Your task to perform on an android device: Check the weather Image 0: 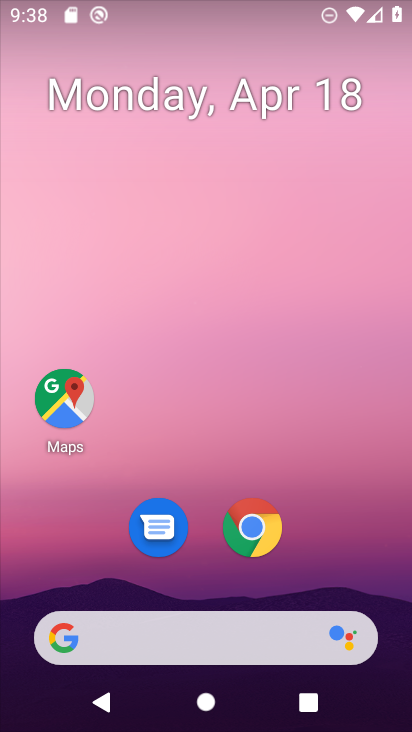
Step 0: drag from (341, 557) to (253, 54)
Your task to perform on an android device: Check the weather Image 1: 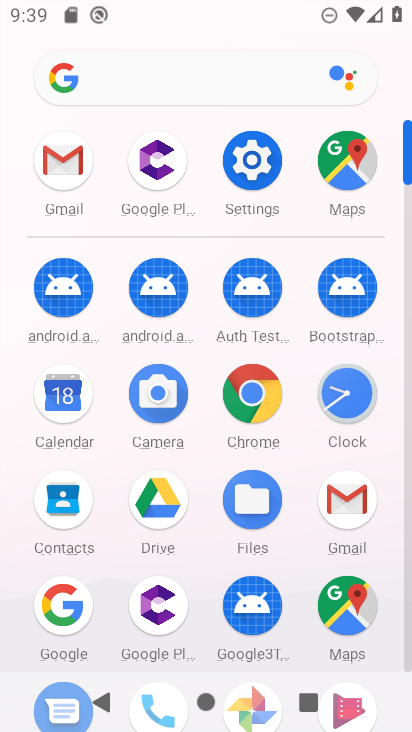
Step 1: drag from (14, 523) to (7, 222)
Your task to perform on an android device: Check the weather Image 2: 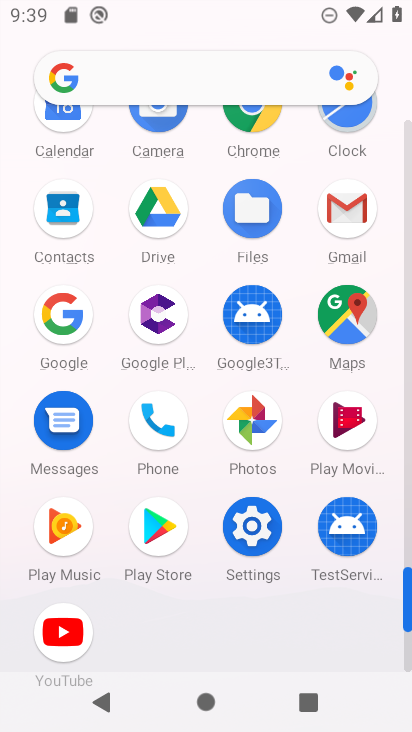
Step 2: drag from (21, 148) to (17, 414)
Your task to perform on an android device: Check the weather Image 3: 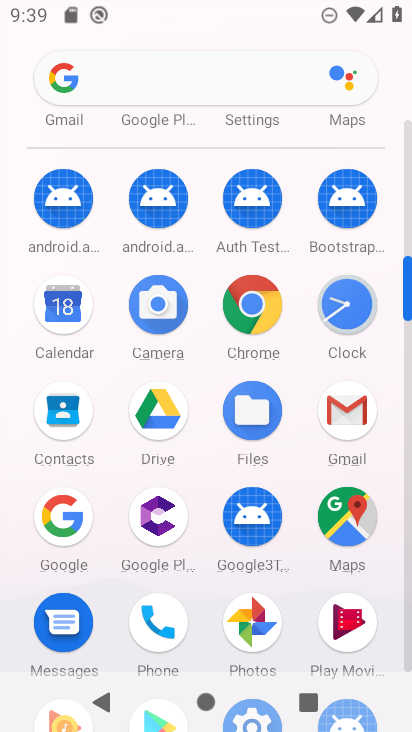
Step 3: drag from (20, 169) to (15, 389)
Your task to perform on an android device: Check the weather Image 4: 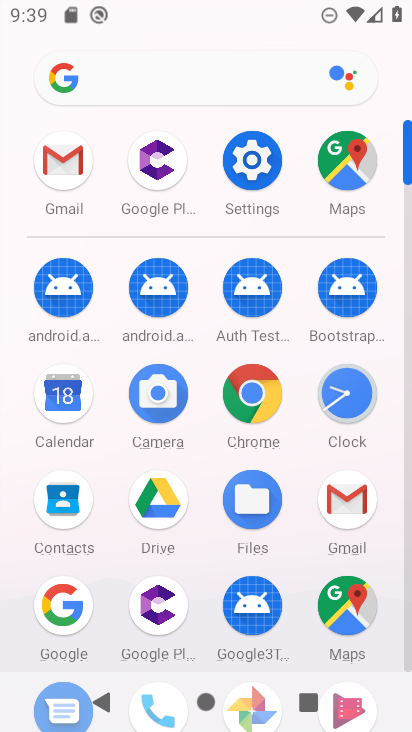
Step 4: click (125, 76)
Your task to perform on an android device: Check the weather Image 5: 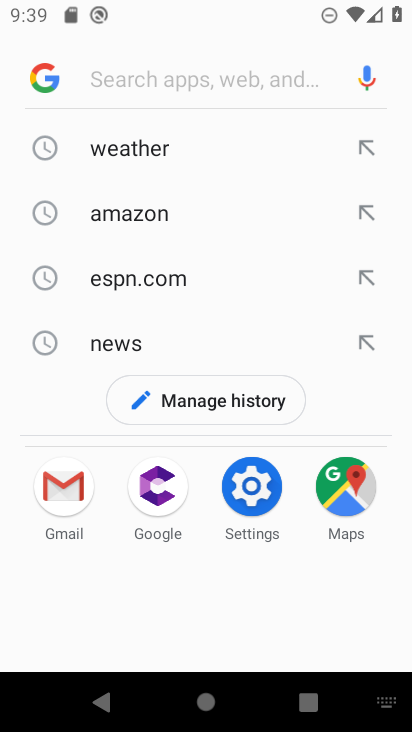
Step 5: click (151, 144)
Your task to perform on an android device: Check the weather Image 6: 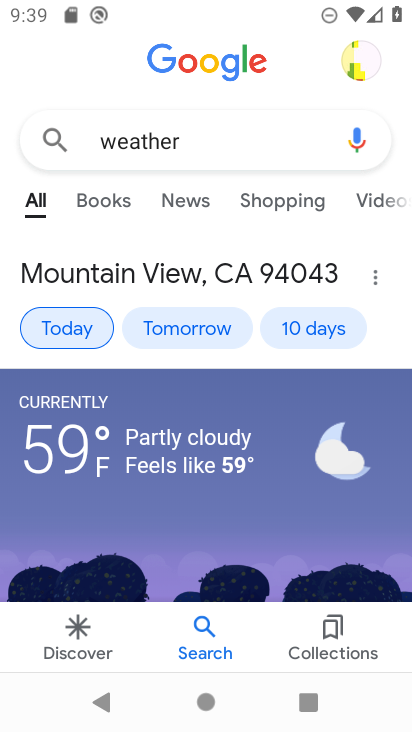
Step 6: task complete